Your task to perform on an android device: allow cookies in the chrome app Image 0: 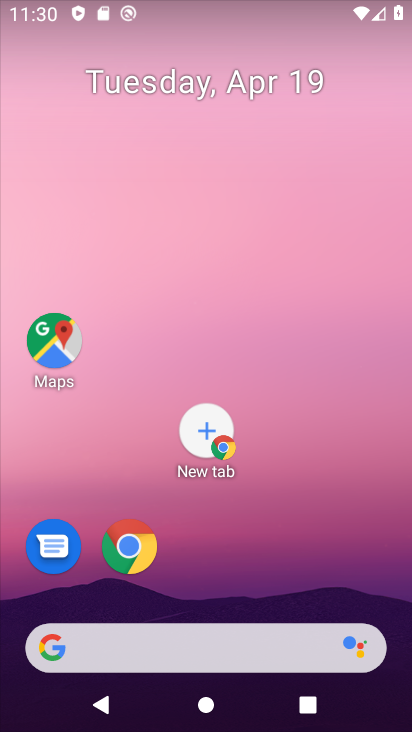
Step 0: click (127, 535)
Your task to perform on an android device: allow cookies in the chrome app Image 1: 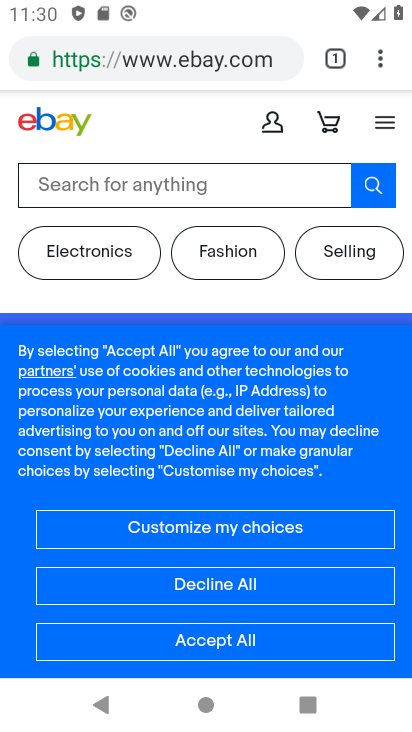
Step 1: click (381, 48)
Your task to perform on an android device: allow cookies in the chrome app Image 2: 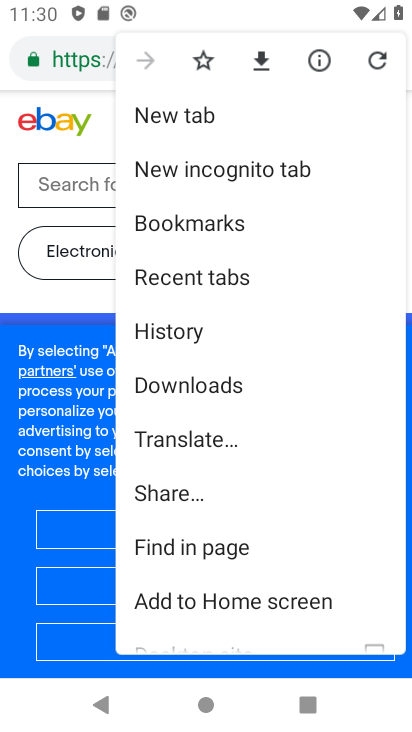
Step 2: drag from (206, 552) to (193, 105)
Your task to perform on an android device: allow cookies in the chrome app Image 3: 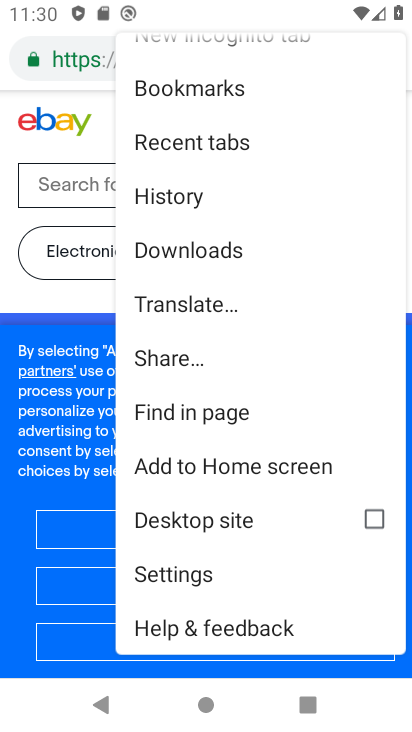
Step 3: click (174, 580)
Your task to perform on an android device: allow cookies in the chrome app Image 4: 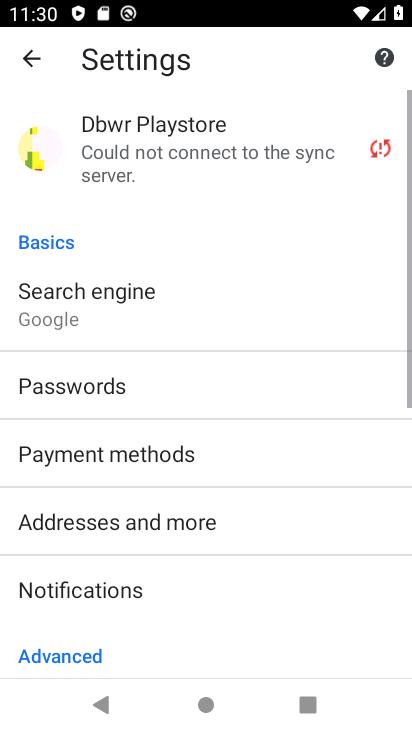
Step 4: drag from (174, 580) to (179, 94)
Your task to perform on an android device: allow cookies in the chrome app Image 5: 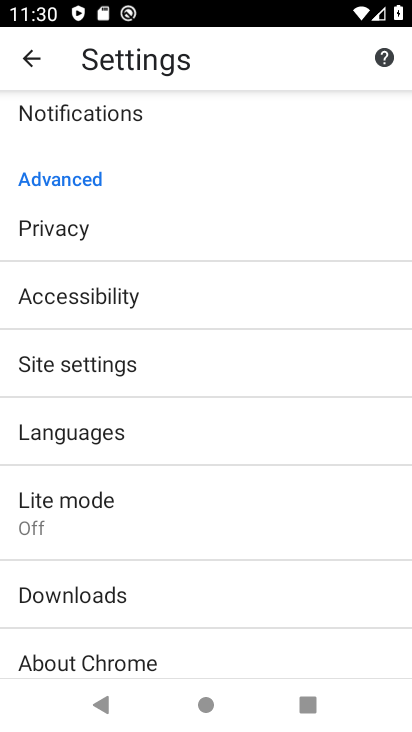
Step 5: click (94, 365)
Your task to perform on an android device: allow cookies in the chrome app Image 6: 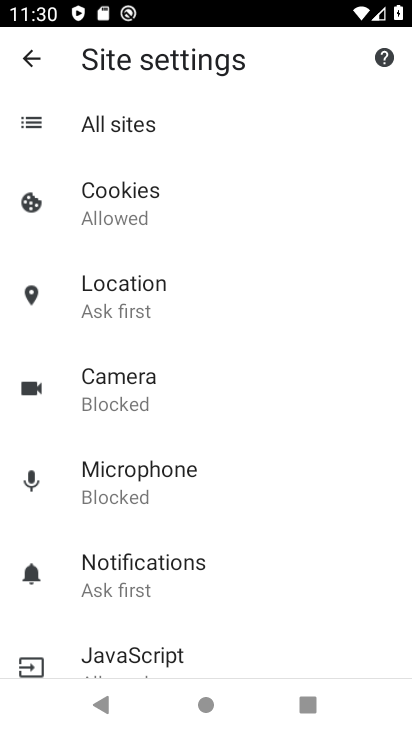
Step 6: click (198, 200)
Your task to perform on an android device: allow cookies in the chrome app Image 7: 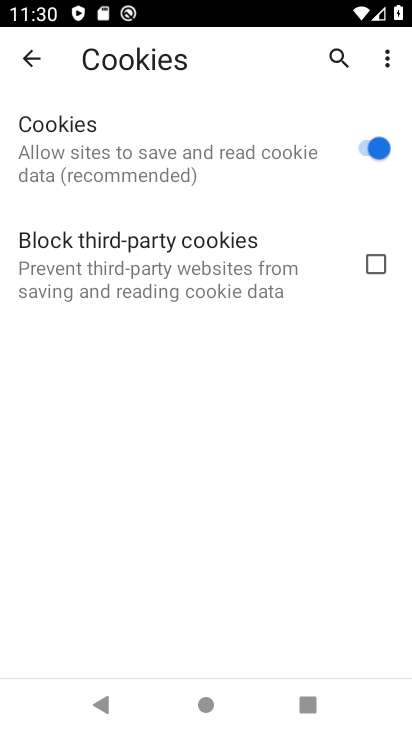
Step 7: task complete